Your task to perform on an android device: What's the weather going to be this weekend? Image 0: 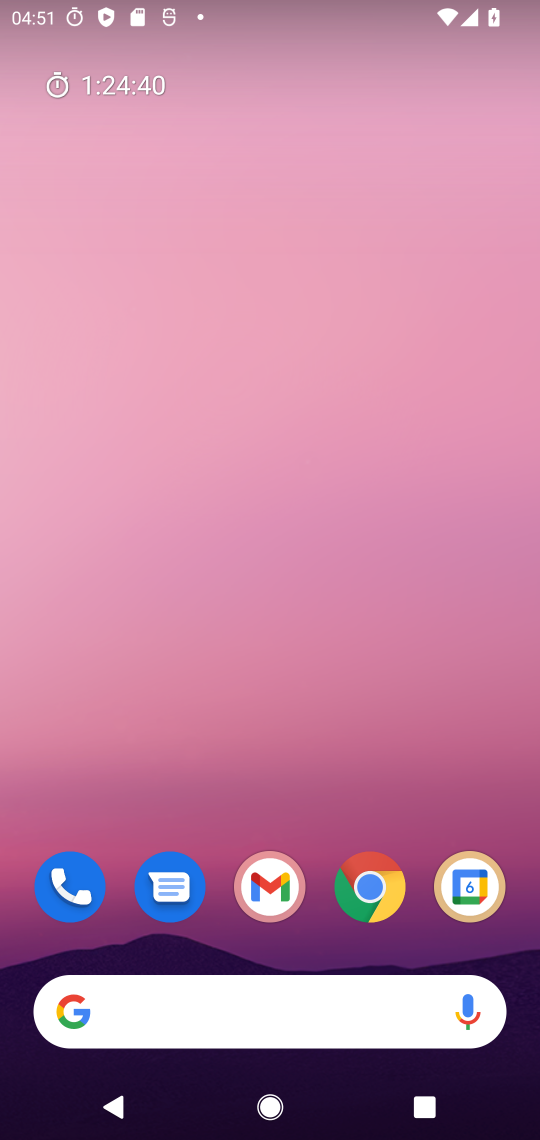
Step 0: press home button
Your task to perform on an android device: What's the weather going to be this weekend? Image 1: 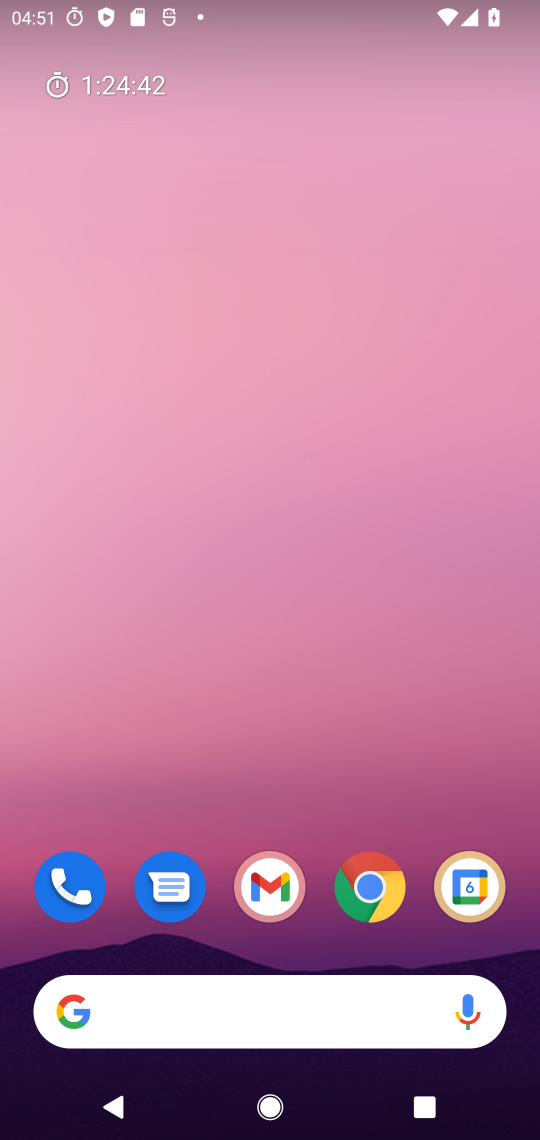
Step 1: drag from (405, 797) to (418, 252)
Your task to perform on an android device: What's the weather going to be this weekend? Image 2: 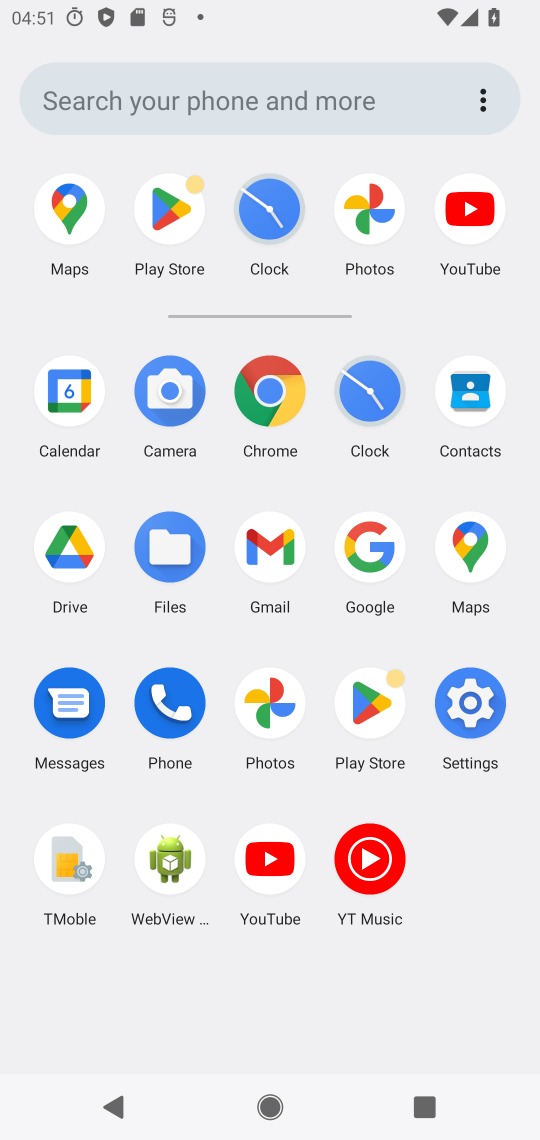
Step 2: click (362, 549)
Your task to perform on an android device: What's the weather going to be this weekend? Image 3: 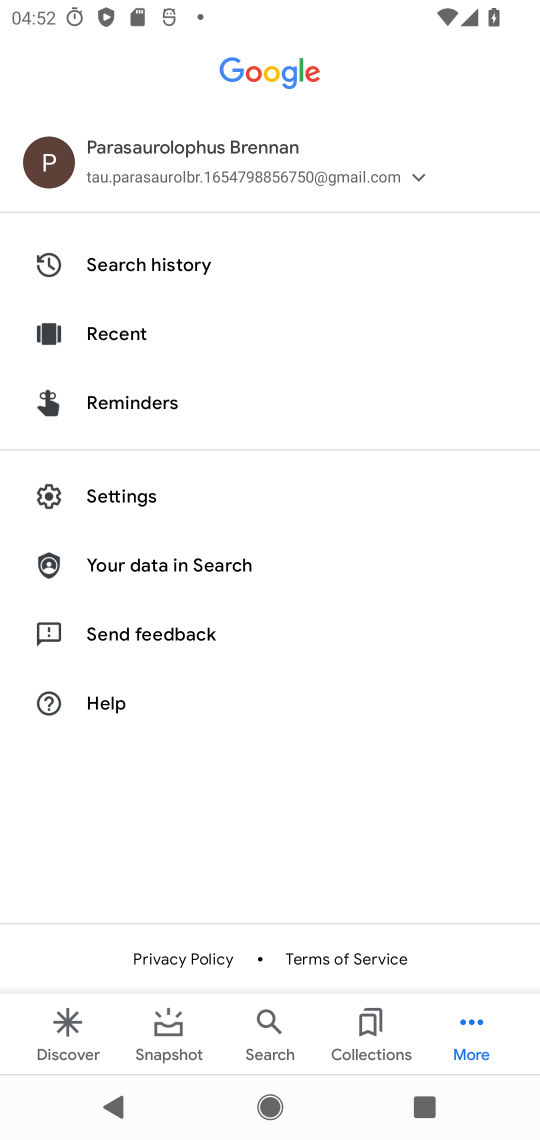
Step 3: press back button
Your task to perform on an android device: What's the weather going to be this weekend? Image 4: 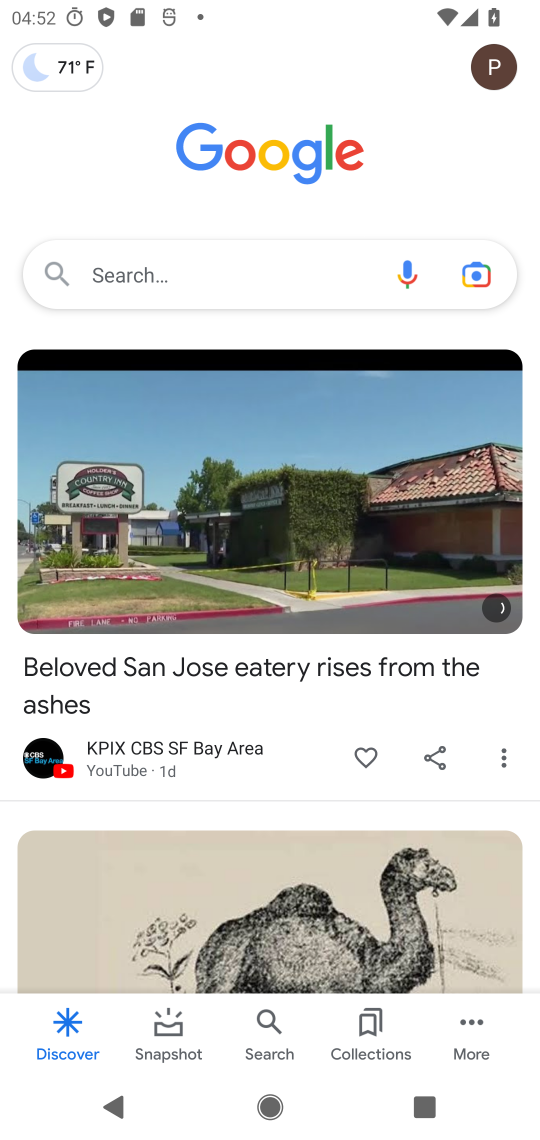
Step 4: click (235, 268)
Your task to perform on an android device: What's the weather going to be this weekend? Image 5: 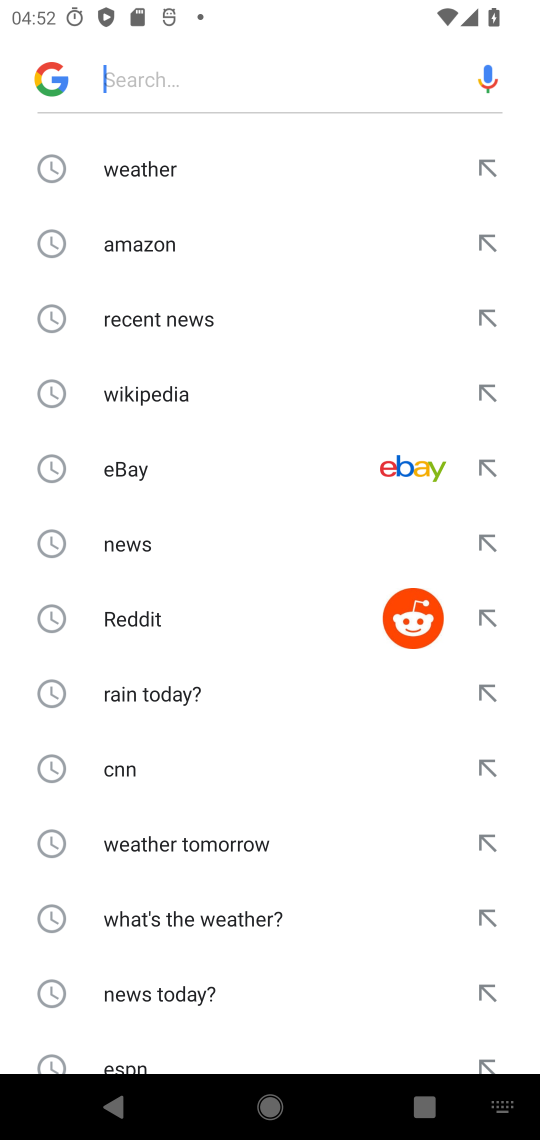
Step 5: click (173, 175)
Your task to perform on an android device: What's the weather going to be this weekend? Image 6: 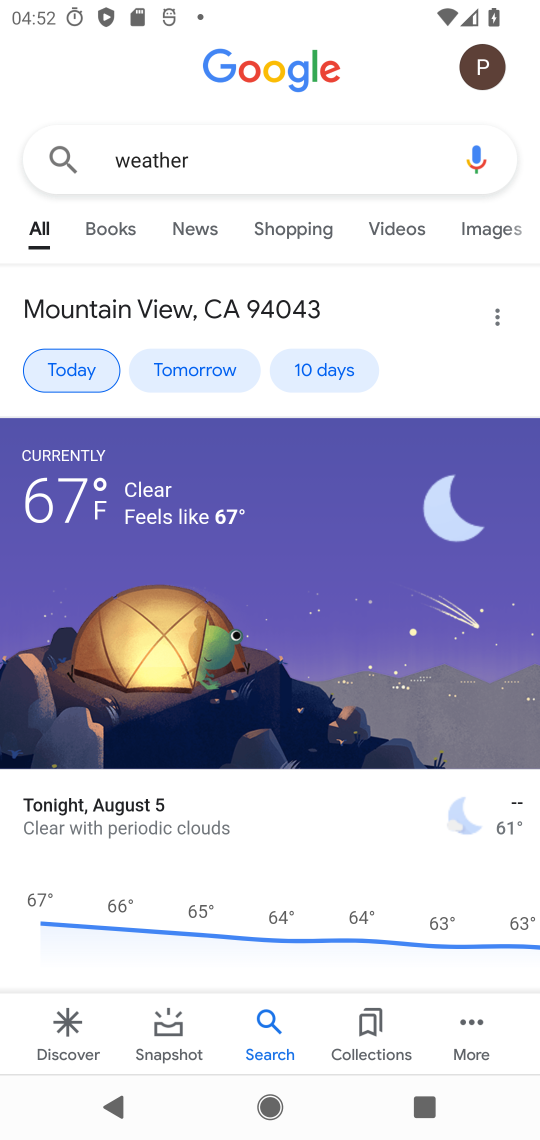
Step 6: click (307, 369)
Your task to perform on an android device: What's the weather going to be this weekend? Image 7: 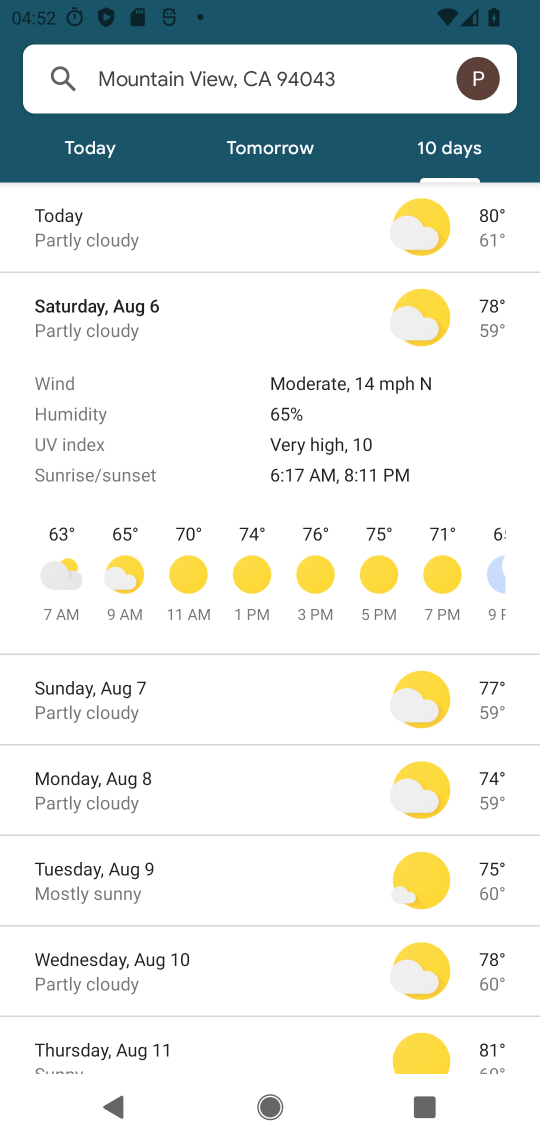
Step 7: task complete